Your task to perform on an android device: check the backup settings in the google photos Image 0: 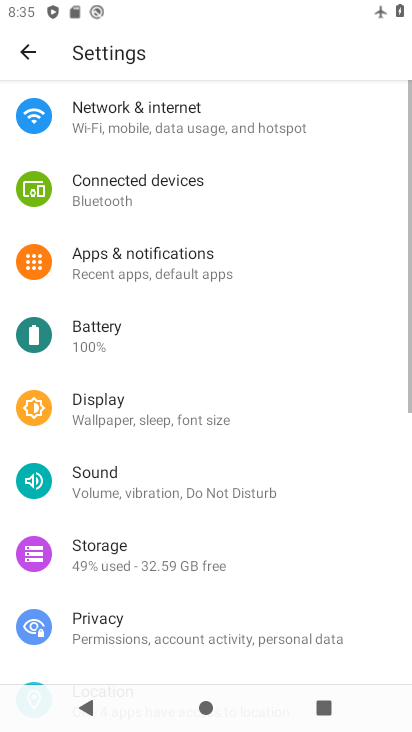
Step 0: press home button
Your task to perform on an android device: check the backup settings in the google photos Image 1: 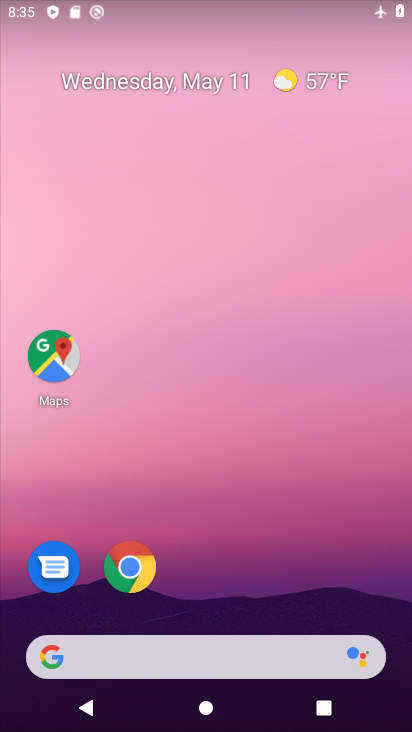
Step 1: drag from (259, 559) to (212, 103)
Your task to perform on an android device: check the backup settings in the google photos Image 2: 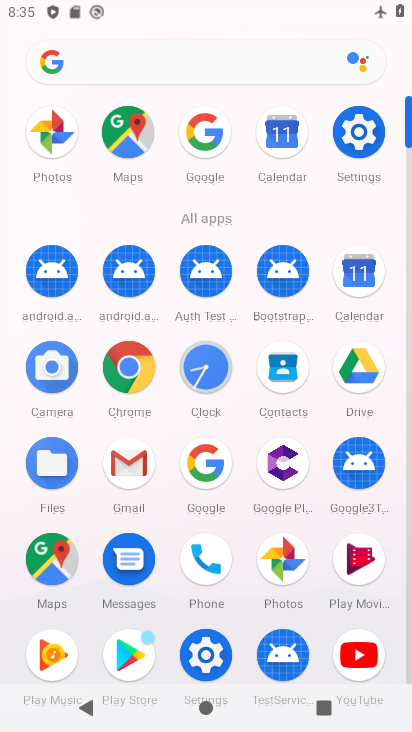
Step 2: click (285, 545)
Your task to perform on an android device: check the backup settings in the google photos Image 3: 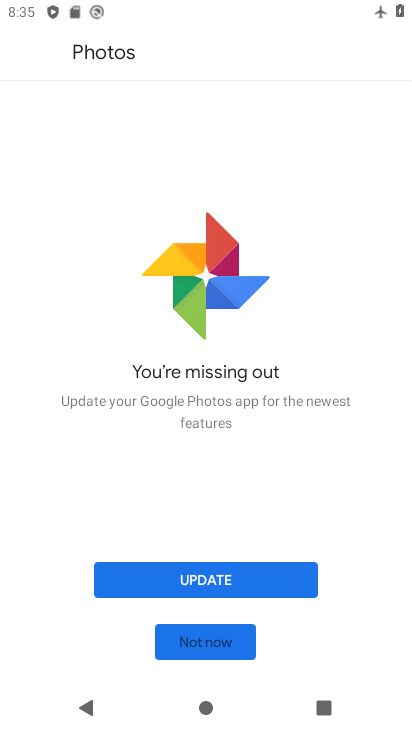
Step 3: click (250, 584)
Your task to perform on an android device: check the backup settings in the google photos Image 4: 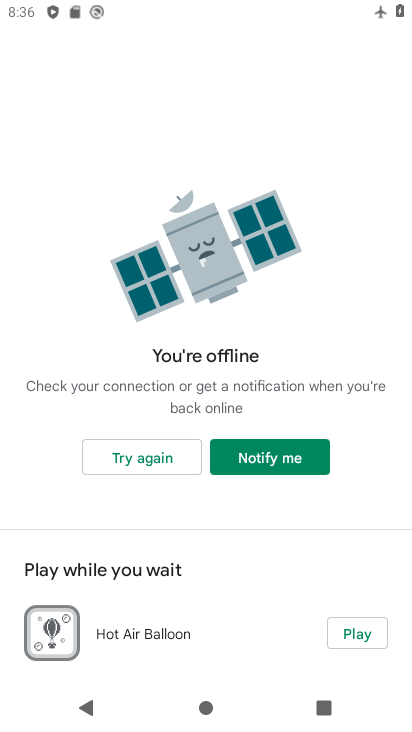
Step 4: click (145, 465)
Your task to perform on an android device: check the backup settings in the google photos Image 5: 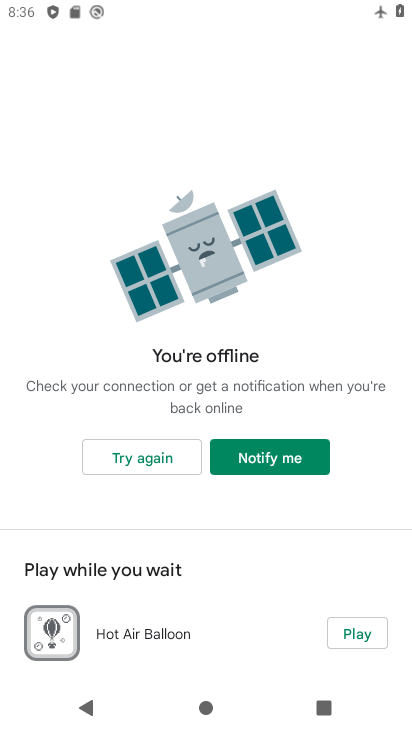
Step 5: click (143, 464)
Your task to perform on an android device: check the backup settings in the google photos Image 6: 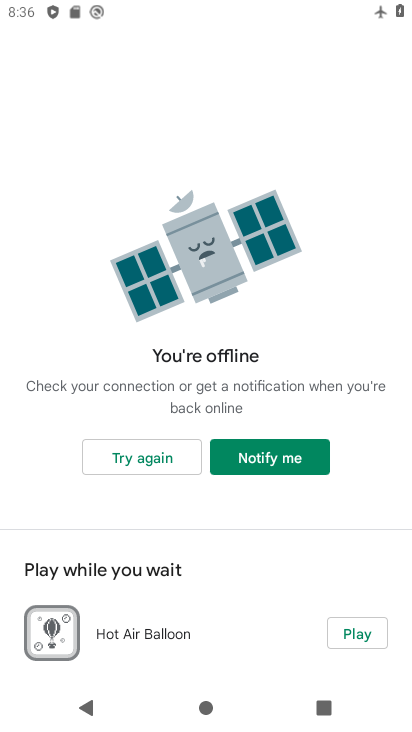
Step 6: task complete